Your task to perform on an android device: Open Chrome and go to the settings page Image 0: 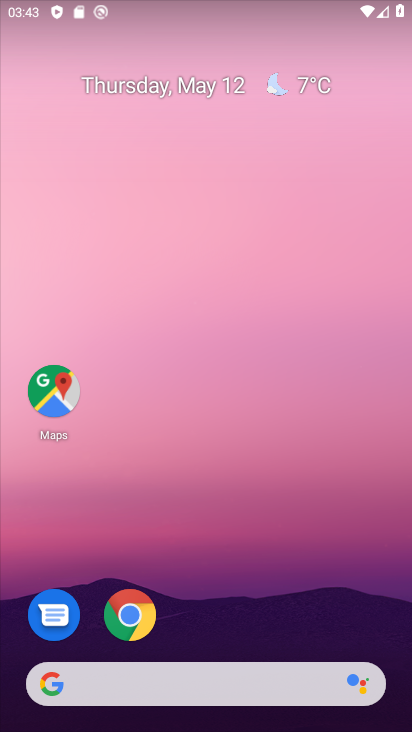
Step 0: click (113, 612)
Your task to perform on an android device: Open Chrome and go to the settings page Image 1: 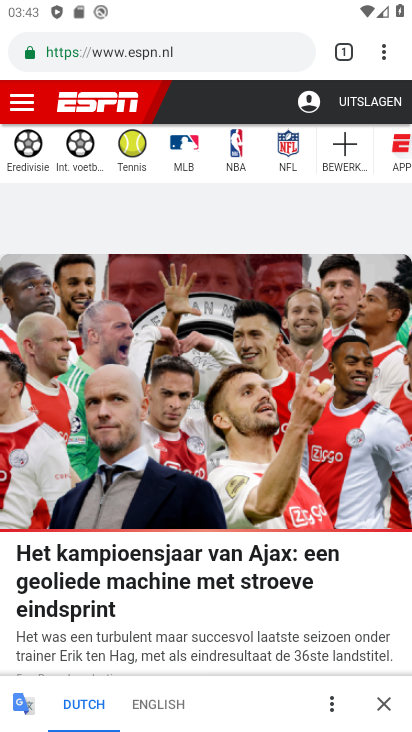
Step 1: click (388, 50)
Your task to perform on an android device: Open Chrome and go to the settings page Image 2: 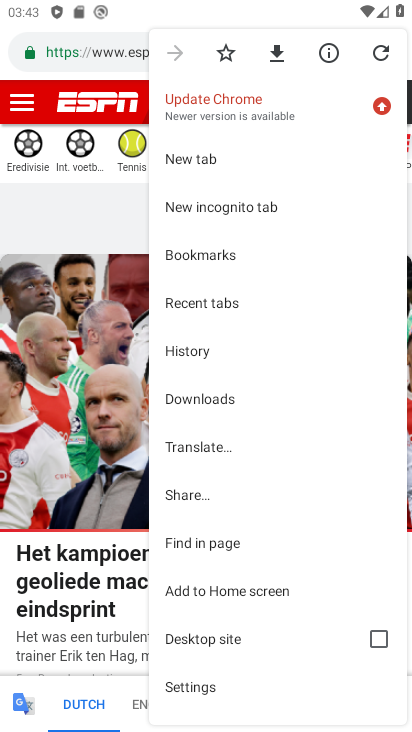
Step 2: click (220, 686)
Your task to perform on an android device: Open Chrome and go to the settings page Image 3: 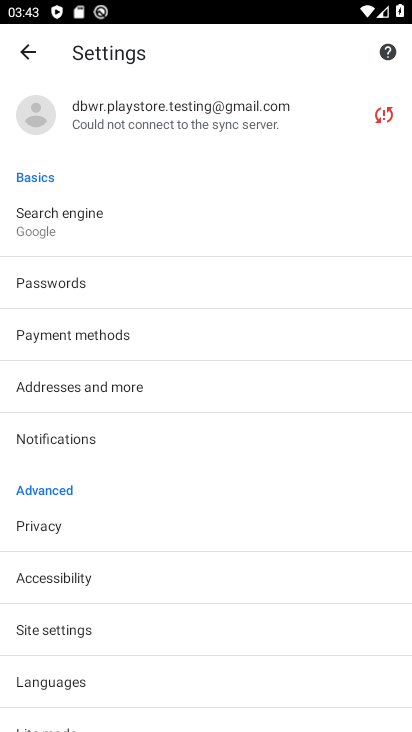
Step 3: click (259, 637)
Your task to perform on an android device: Open Chrome and go to the settings page Image 4: 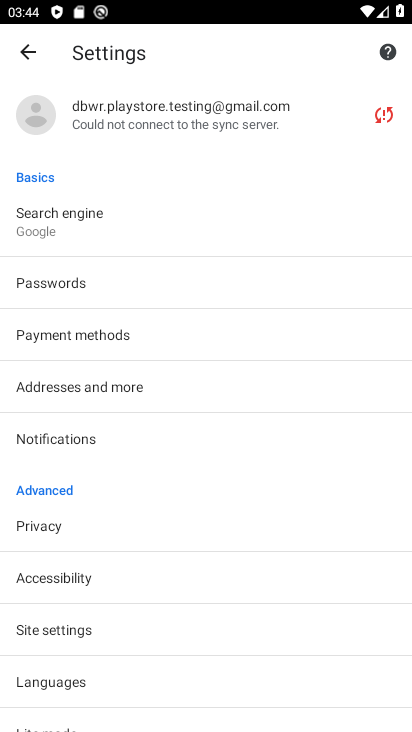
Step 4: task complete